Your task to perform on an android device: delete the emails in spam in the gmail app Image 0: 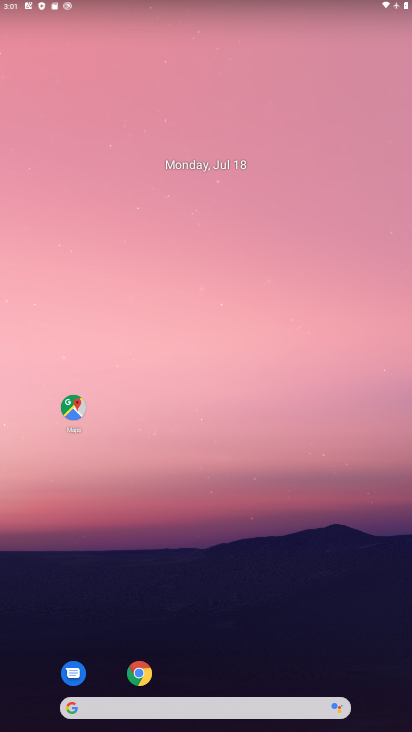
Step 0: drag from (284, 660) to (273, 376)
Your task to perform on an android device: delete the emails in spam in the gmail app Image 1: 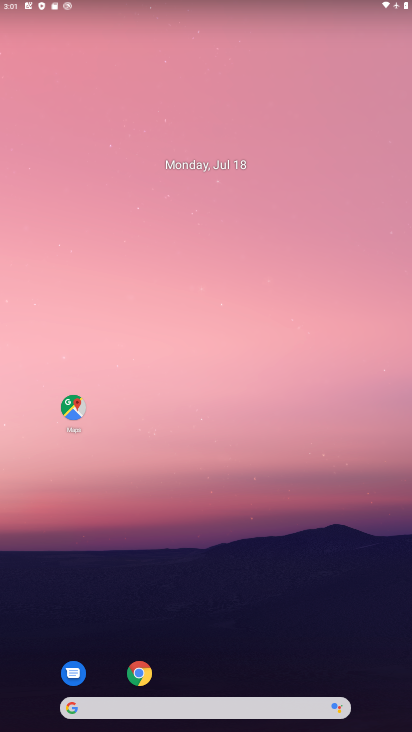
Step 1: drag from (192, 629) to (211, 237)
Your task to perform on an android device: delete the emails in spam in the gmail app Image 2: 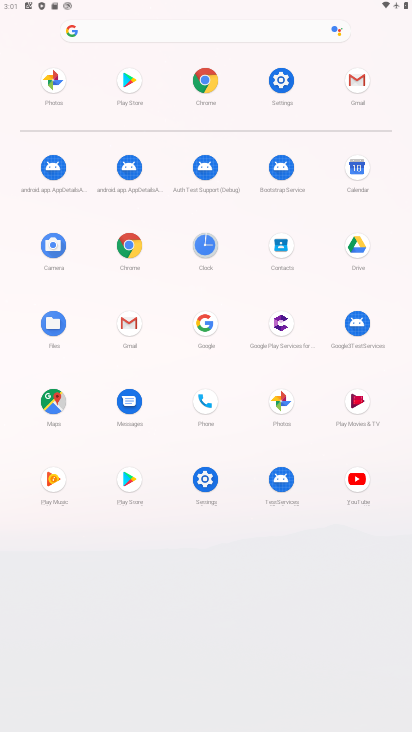
Step 2: click (358, 89)
Your task to perform on an android device: delete the emails in spam in the gmail app Image 3: 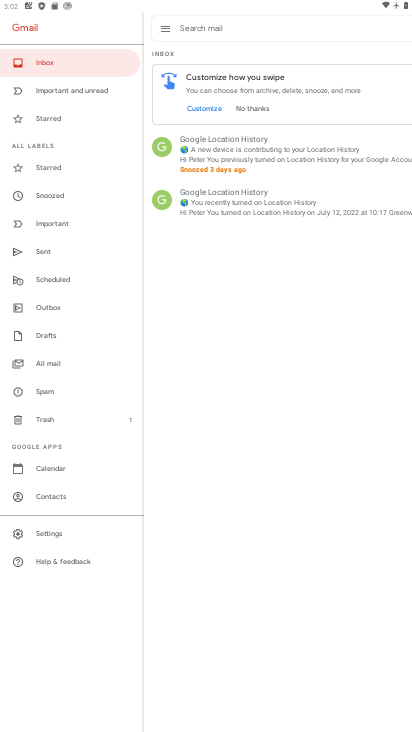
Step 3: click (62, 395)
Your task to perform on an android device: delete the emails in spam in the gmail app Image 4: 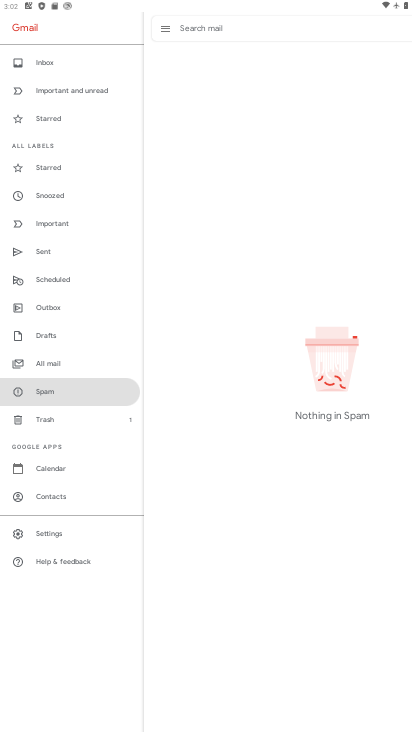
Step 4: task complete